Your task to perform on an android device: open a bookmark in the chrome app Image 0: 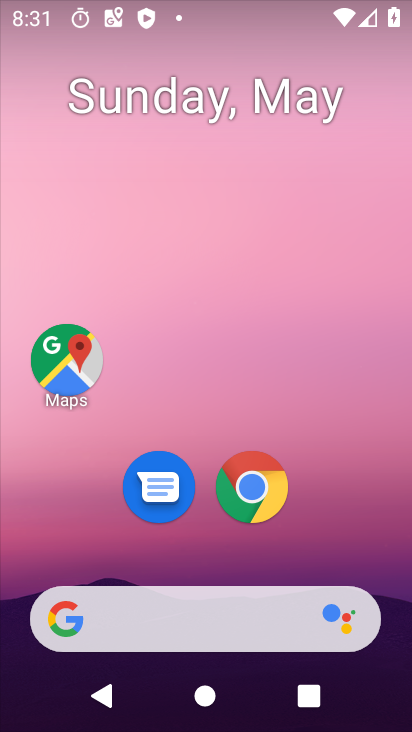
Step 0: drag from (34, 612) to (255, 124)
Your task to perform on an android device: open a bookmark in the chrome app Image 1: 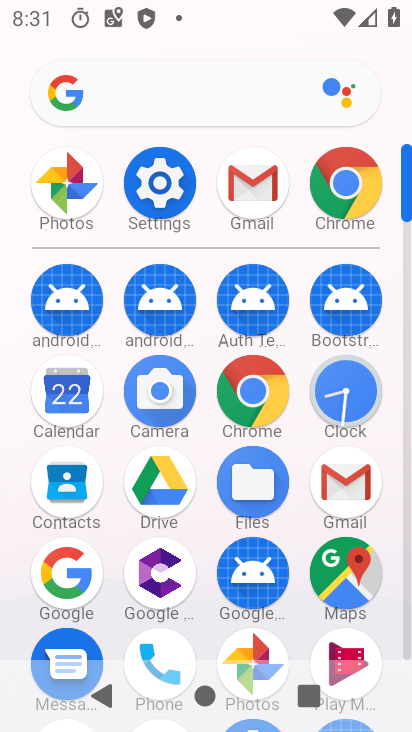
Step 1: click (345, 176)
Your task to perform on an android device: open a bookmark in the chrome app Image 2: 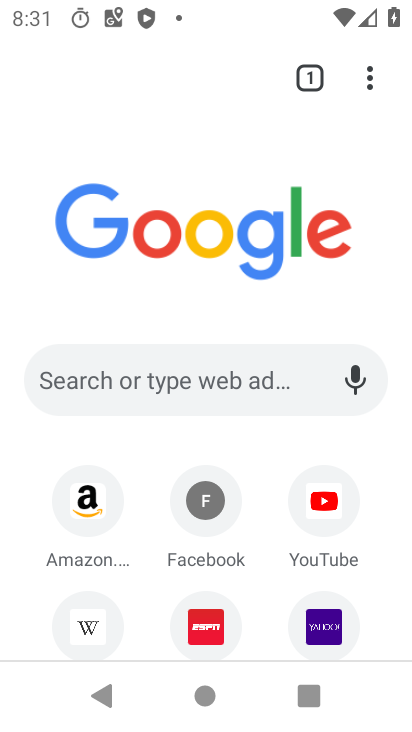
Step 2: click (376, 98)
Your task to perform on an android device: open a bookmark in the chrome app Image 3: 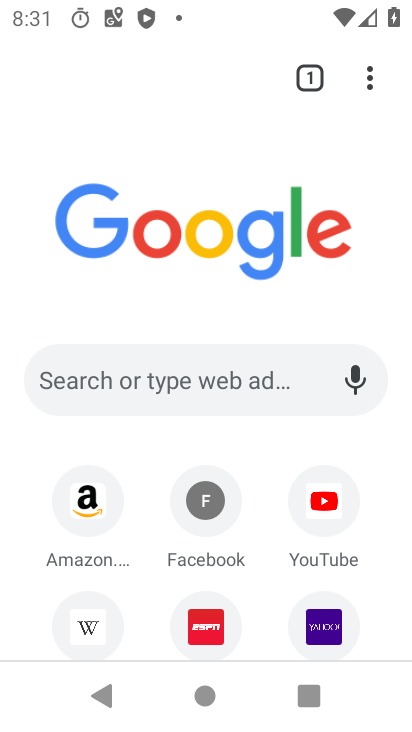
Step 3: click (369, 74)
Your task to perform on an android device: open a bookmark in the chrome app Image 4: 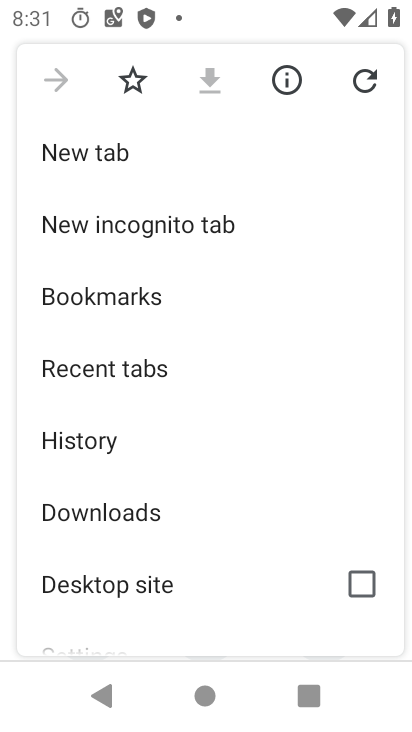
Step 4: click (88, 307)
Your task to perform on an android device: open a bookmark in the chrome app Image 5: 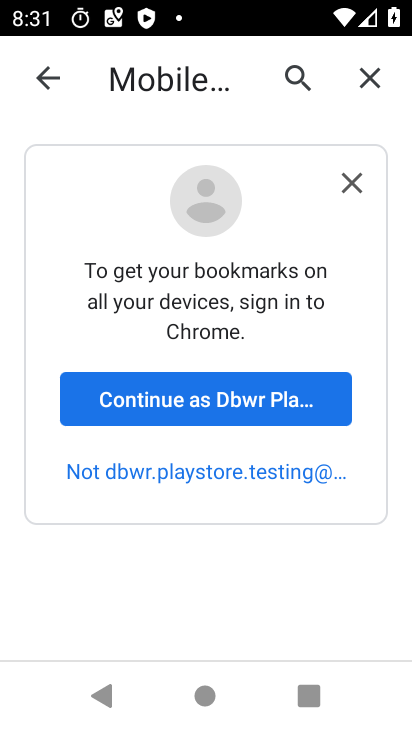
Step 5: click (349, 175)
Your task to perform on an android device: open a bookmark in the chrome app Image 6: 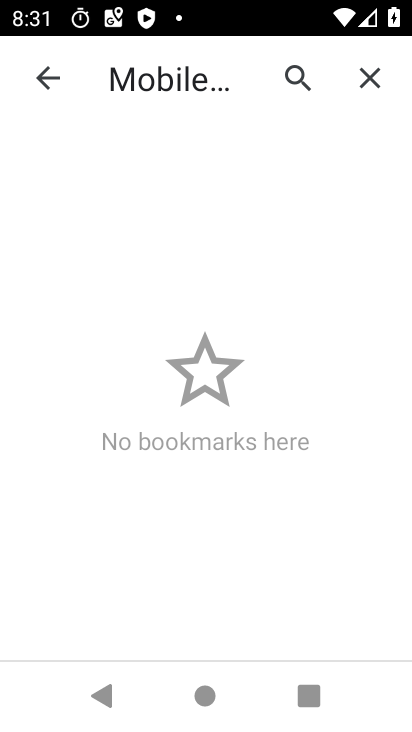
Step 6: task complete